Your task to perform on an android device: check the backup settings in the google photos Image 0: 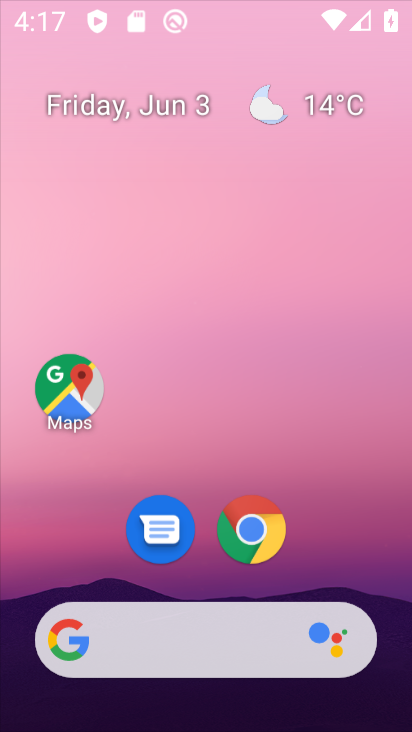
Step 0: drag from (409, 101) to (410, 46)
Your task to perform on an android device: check the backup settings in the google photos Image 1: 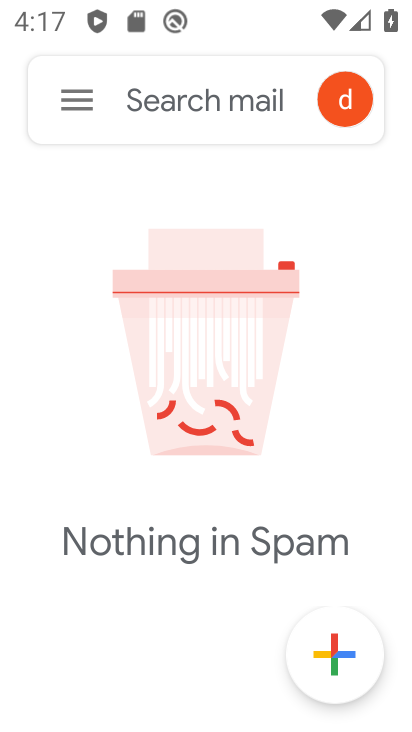
Step 1: press home button
Your task to perform on an android device: check the backup settings in the google photos Image 2: 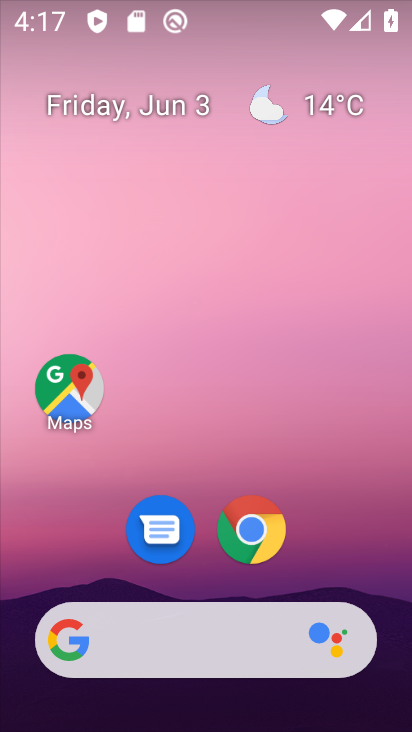
Step 2: drag from (296, 520) to (297, 126)
Your task to perform on an android device: check the backup settings in the google photos Image 3: 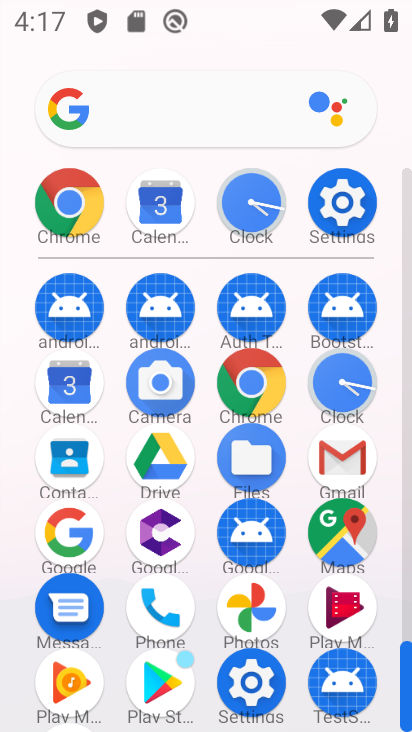
Step 3: click (261, 608)
Your task to perform on an android device: check the backup settings in the google photos Image 4: 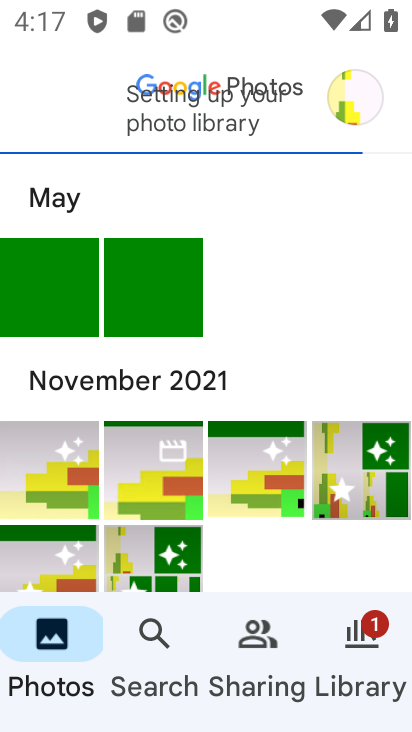
Step 4: click (373, 96)
Your task to perform on an android device: check the backup settings in the google photos Image 5: 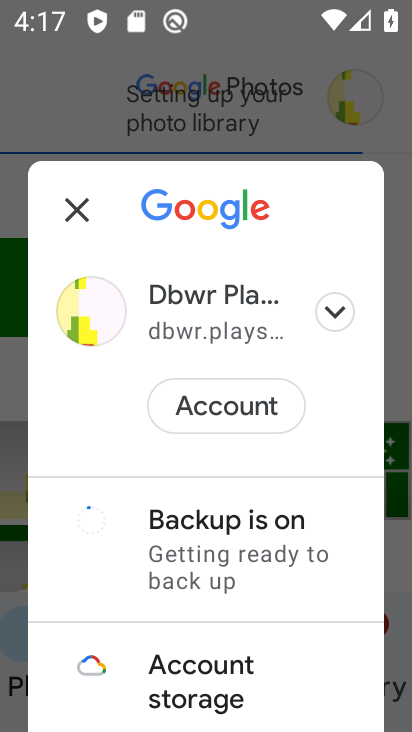
Step 5: drag from (195, 661) to (220, 233)
Your task to perform on an android device: check the backup settings in the google photos Image 6: 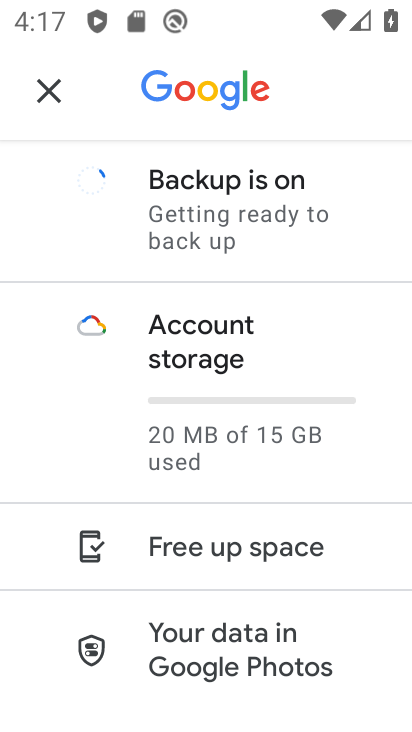
Step 6: drag from (206, 659) to (252, 235)
Your task to perform on an android device: check the backup settings in the google photos Image 7: 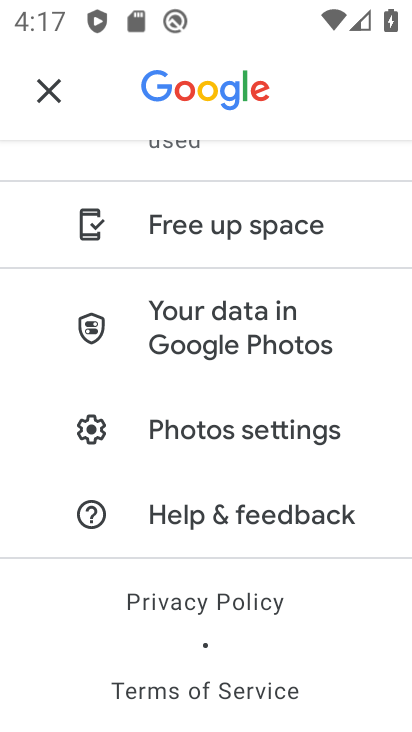
Step 7: click (228, 445)
Your task to perform on an android device: check the backup settings in the google photos Image 8: 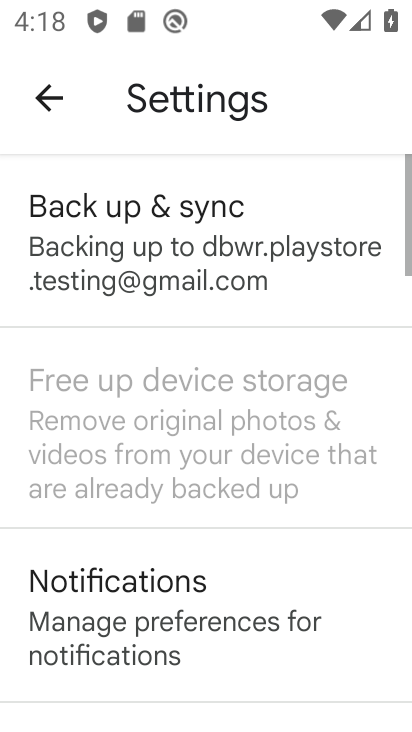
Step 8: click (158, 206)
Your task to perform on an android device: check the backup settings in the google photos Image 9: 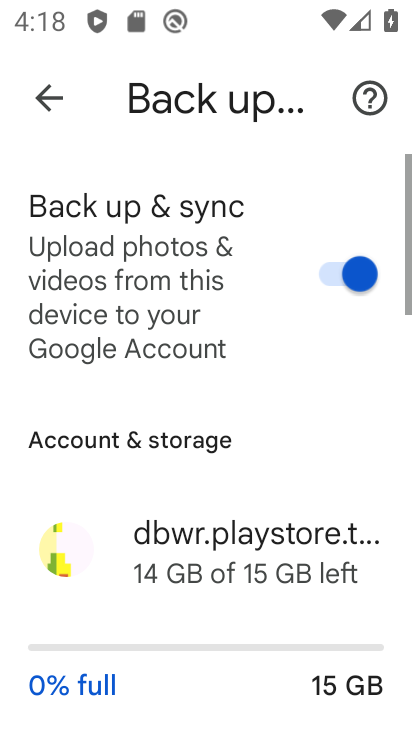
Step 9: task complete